Your task to perform on an android device: set an alarm Image 0: 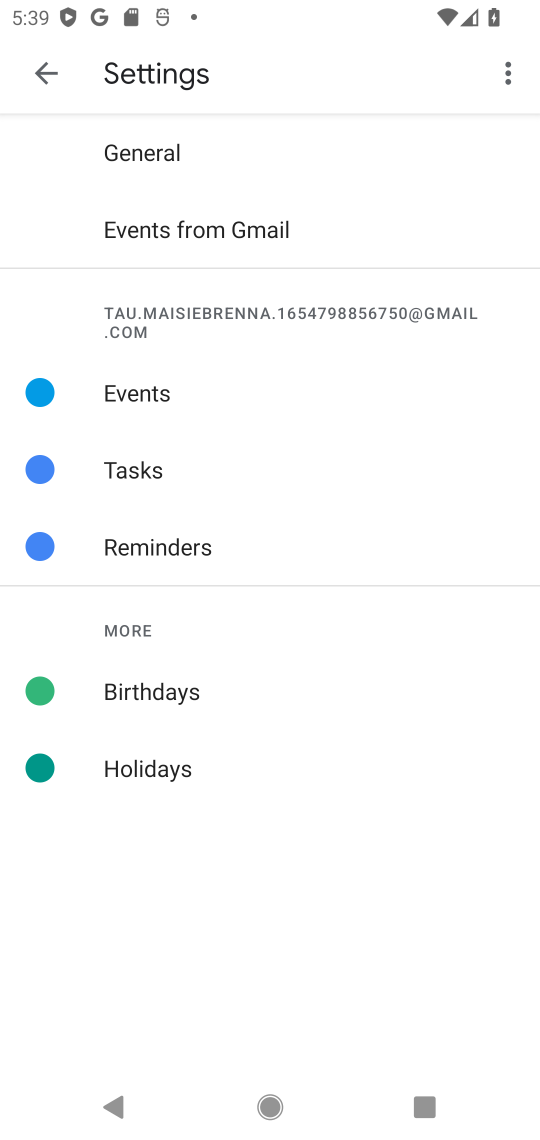
Step 0: press home button
Your task to perform on an android device: set an alarm Image 1: 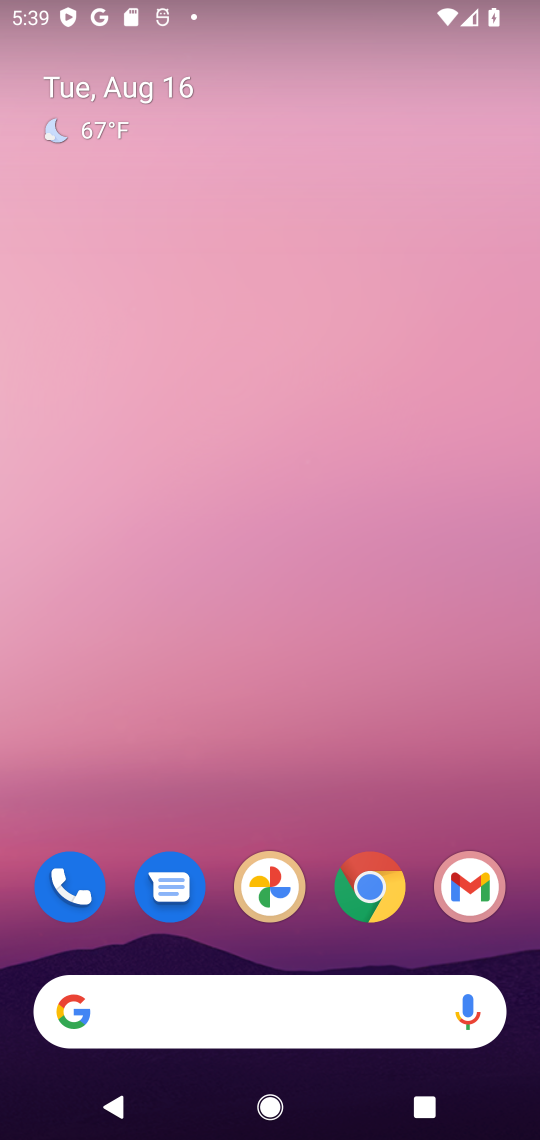
Step 1: drag from (342, 785) to (404, 67)
Your task to perform on an android device: set an alarm Image 2: 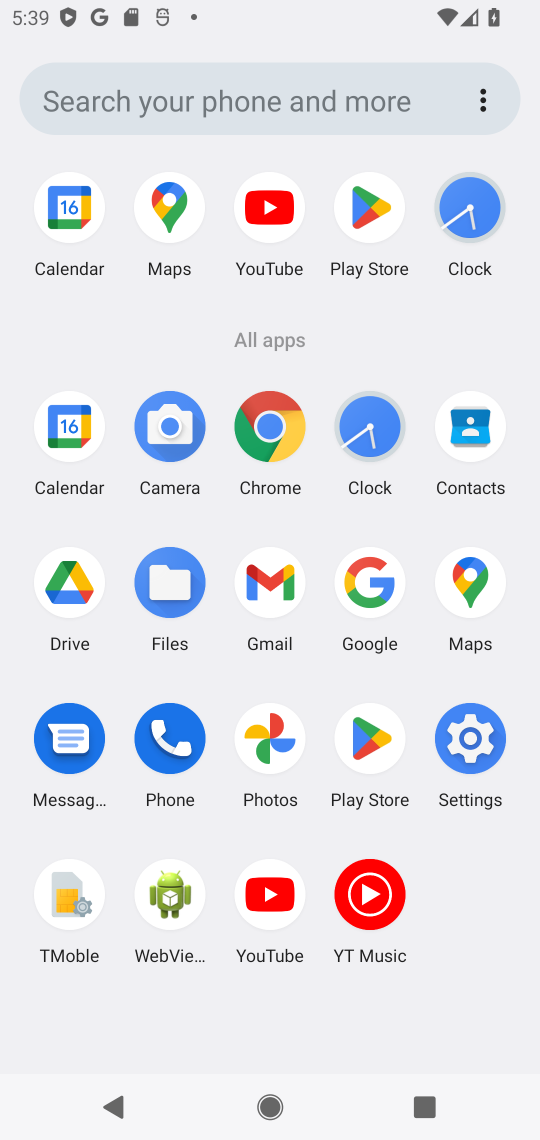
Step 2: click (367, 425)
Your task to perform on an android device: set an alarm Image 3: 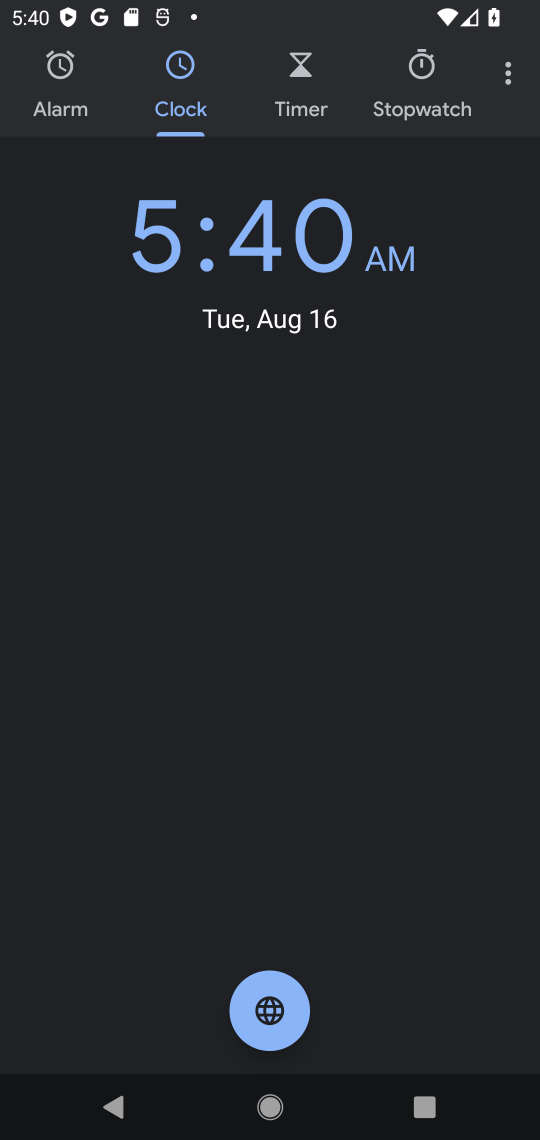
Step 3: click (69, 90)
Your task to perform on an android device: set an alarm Image 4: 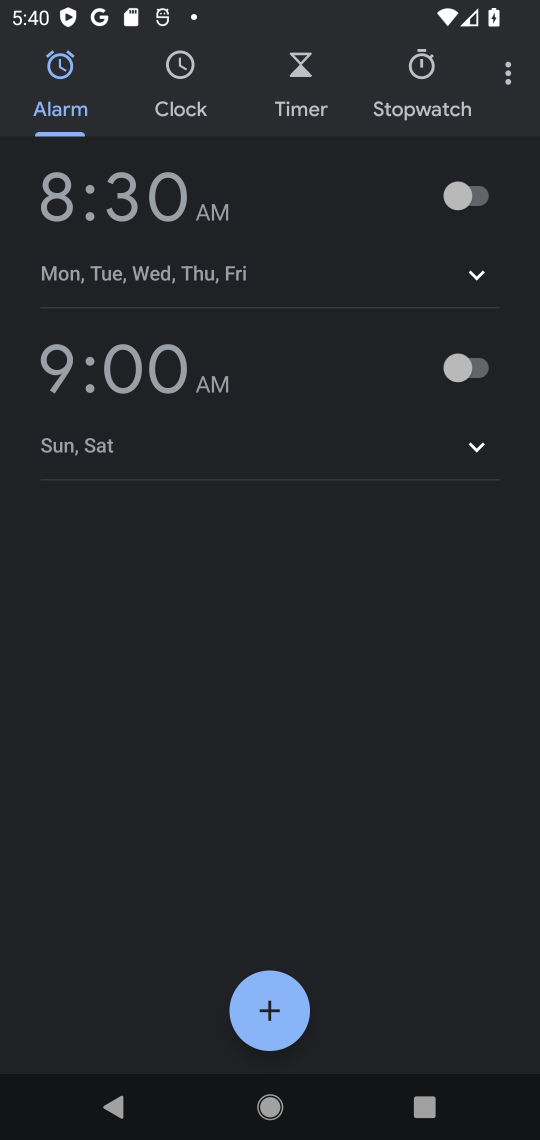
Step 4: click (285, 1015)
Your task to perform on an android device: set an alarm Image 5: 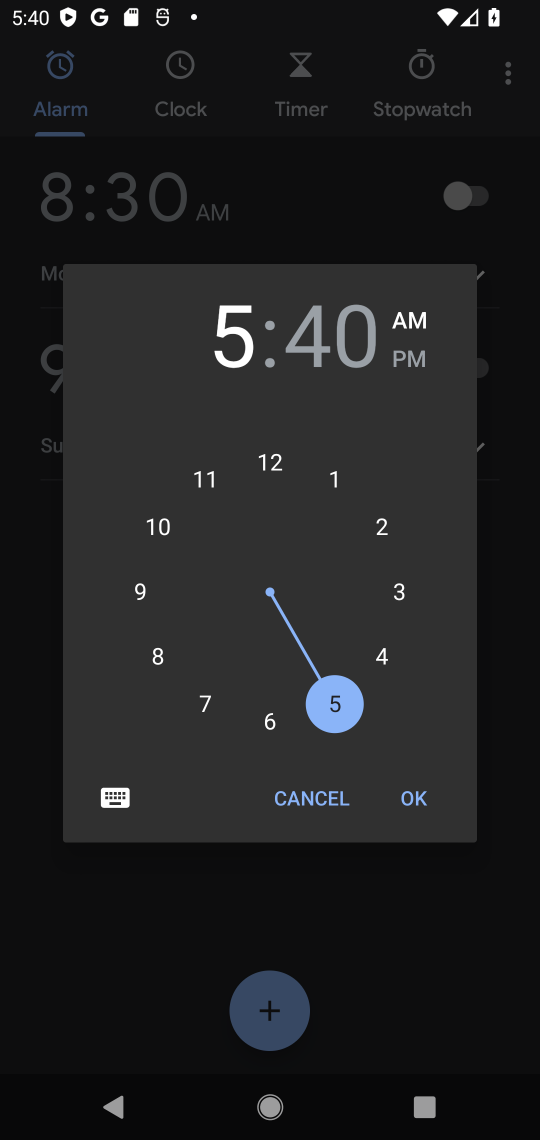
Step 5: click (416, 799)
Your task to perform on an android device: set an alarm Image 6: 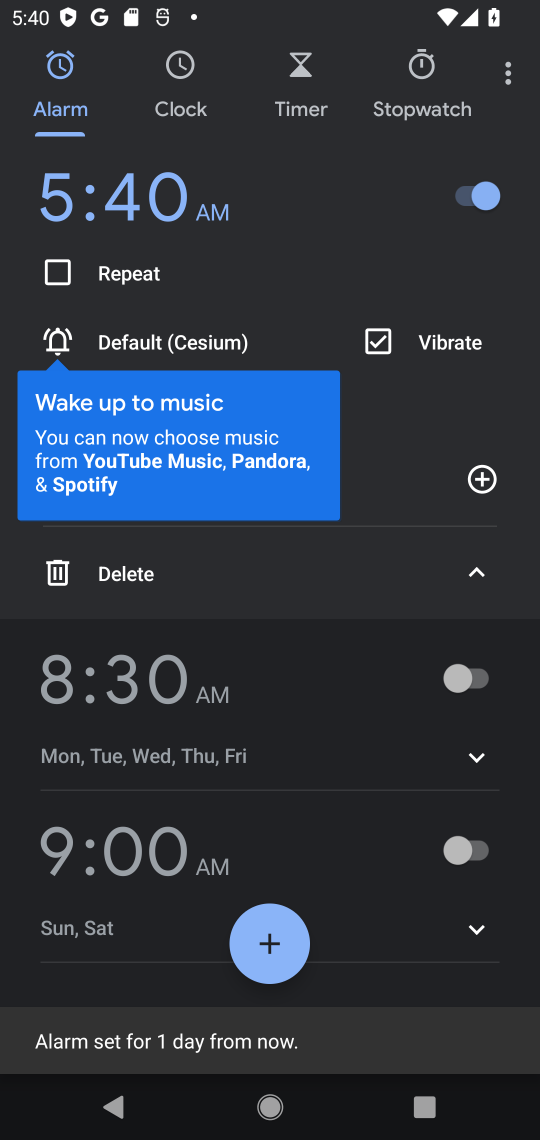
Step 6: task complete